Your task to perform on an android device: What is the capital of Brazil? Image 0: 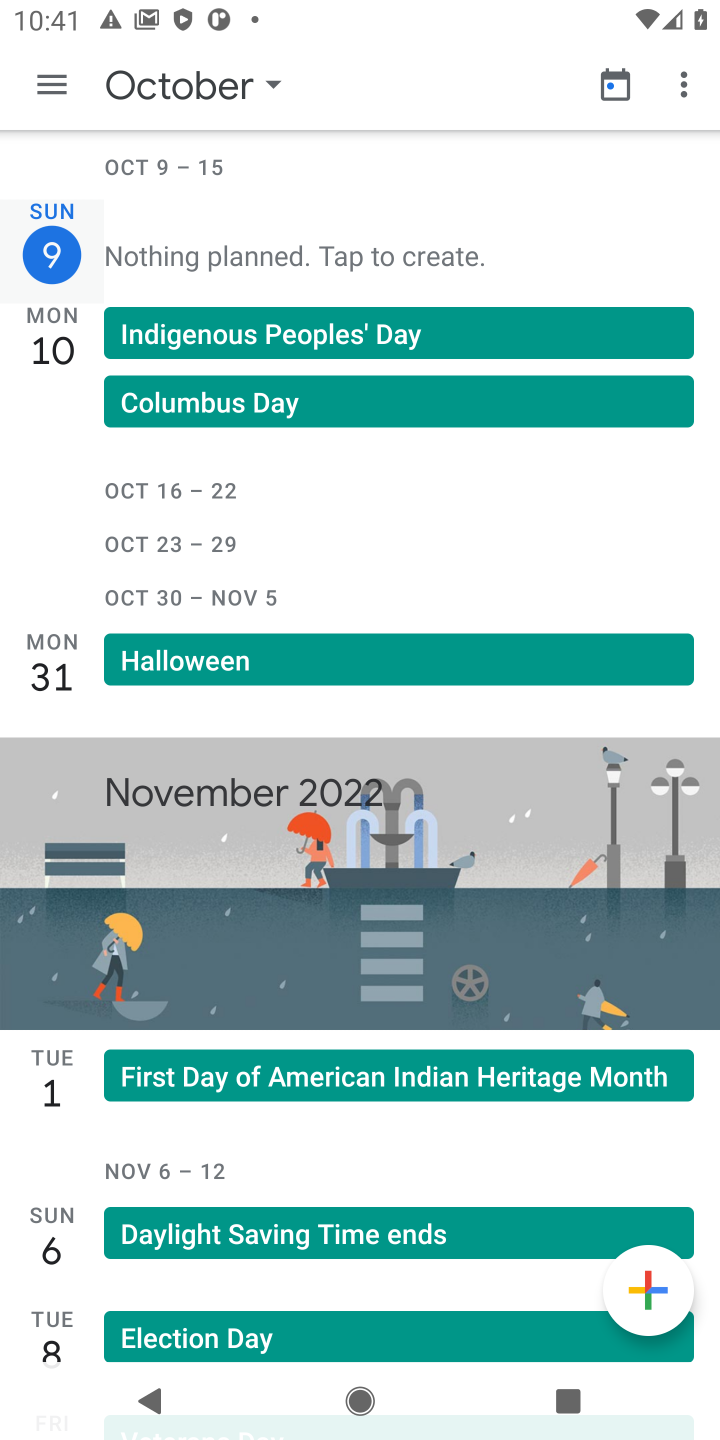
Step 0: press home button
Your task to perform on an android device: What is the capital of Brazil? Image 1: 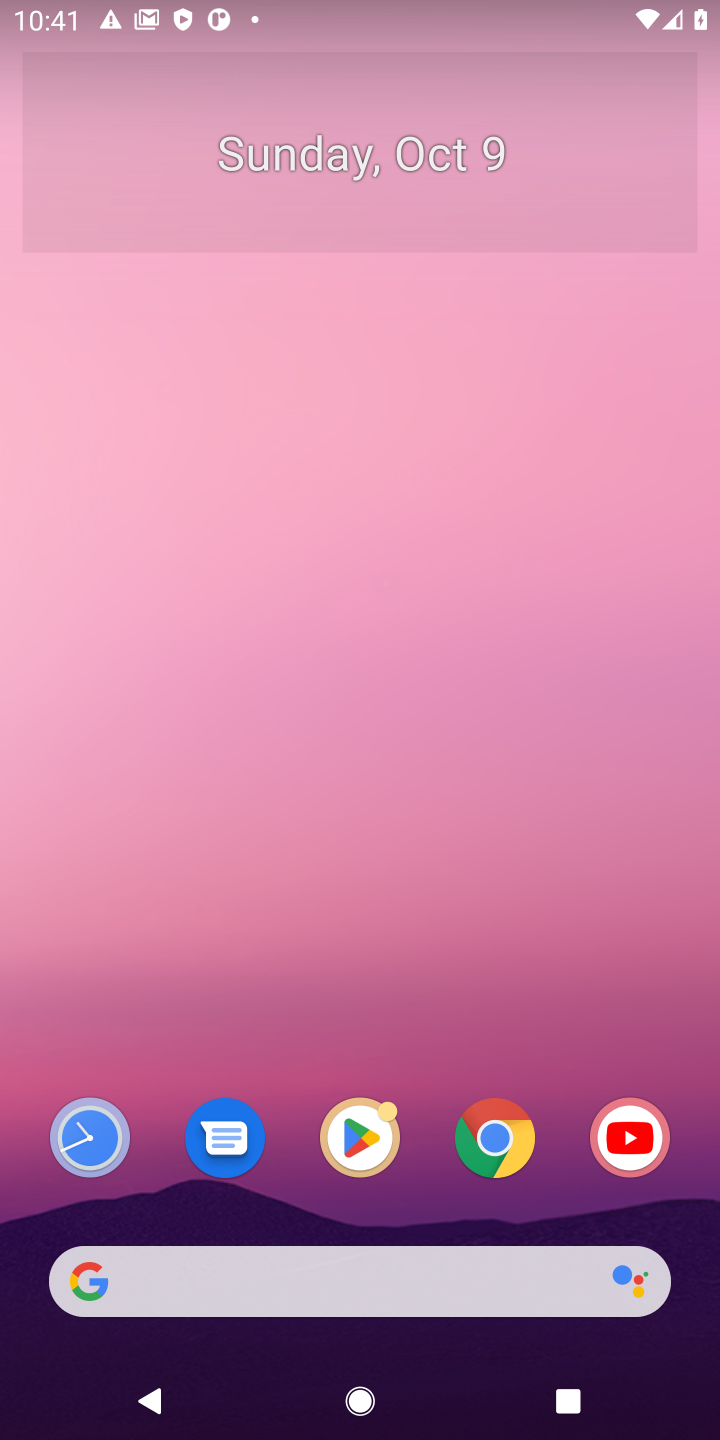
Step 1: click (415, 1161)
Your task to perform on an android device: What is the capital of Brazil? Image 2: 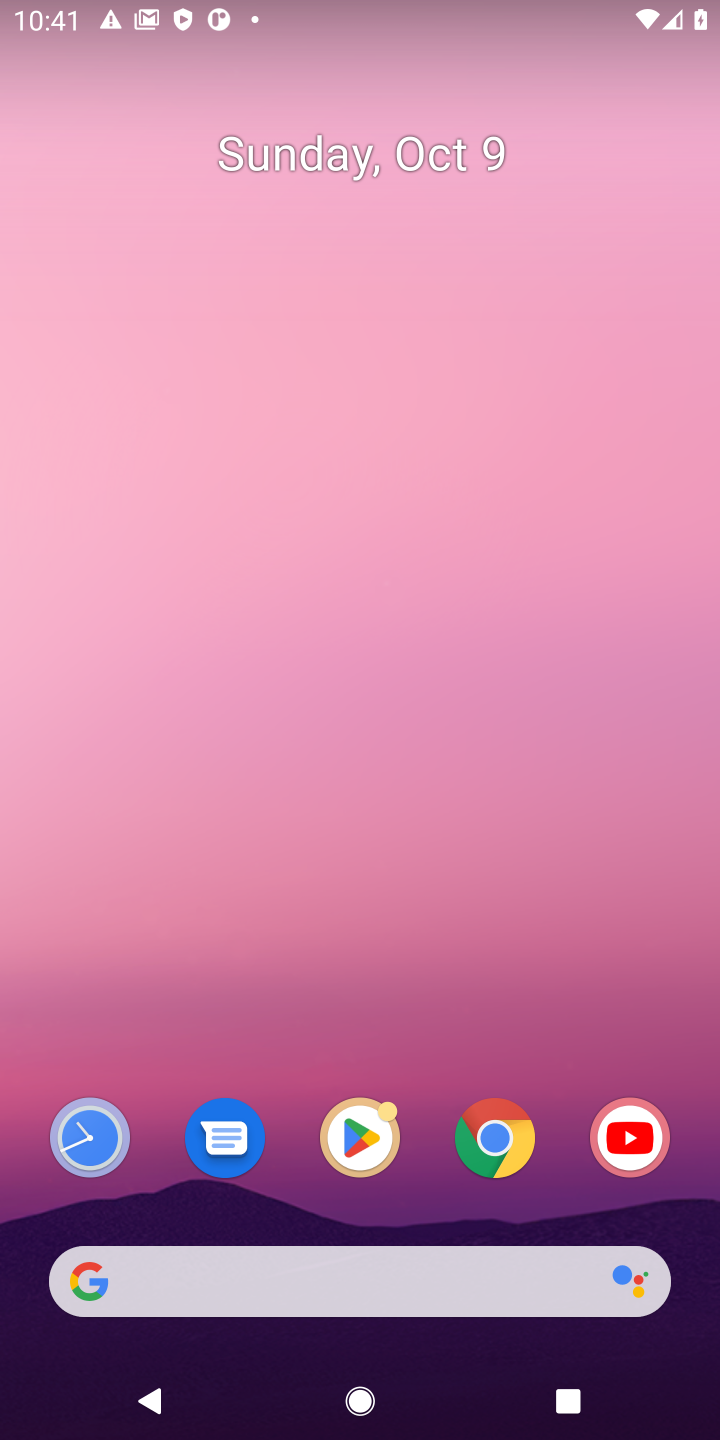
Step 2: click (477, 1164)
Your task to perform on an android device: What is the capital of Brazil? Image 3: 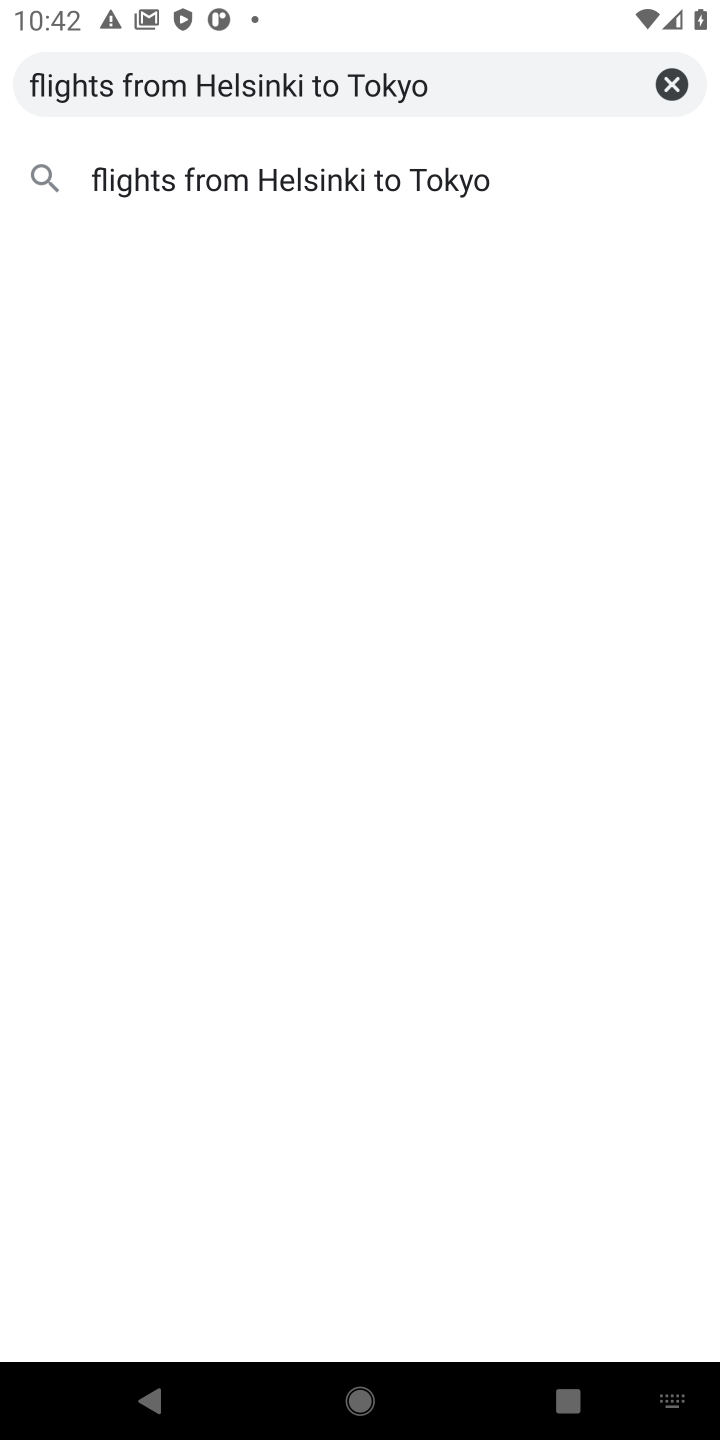
Step 3: click (670, 90)
Your task to perform on an android device: What is the capital of Brazil? Image 4: 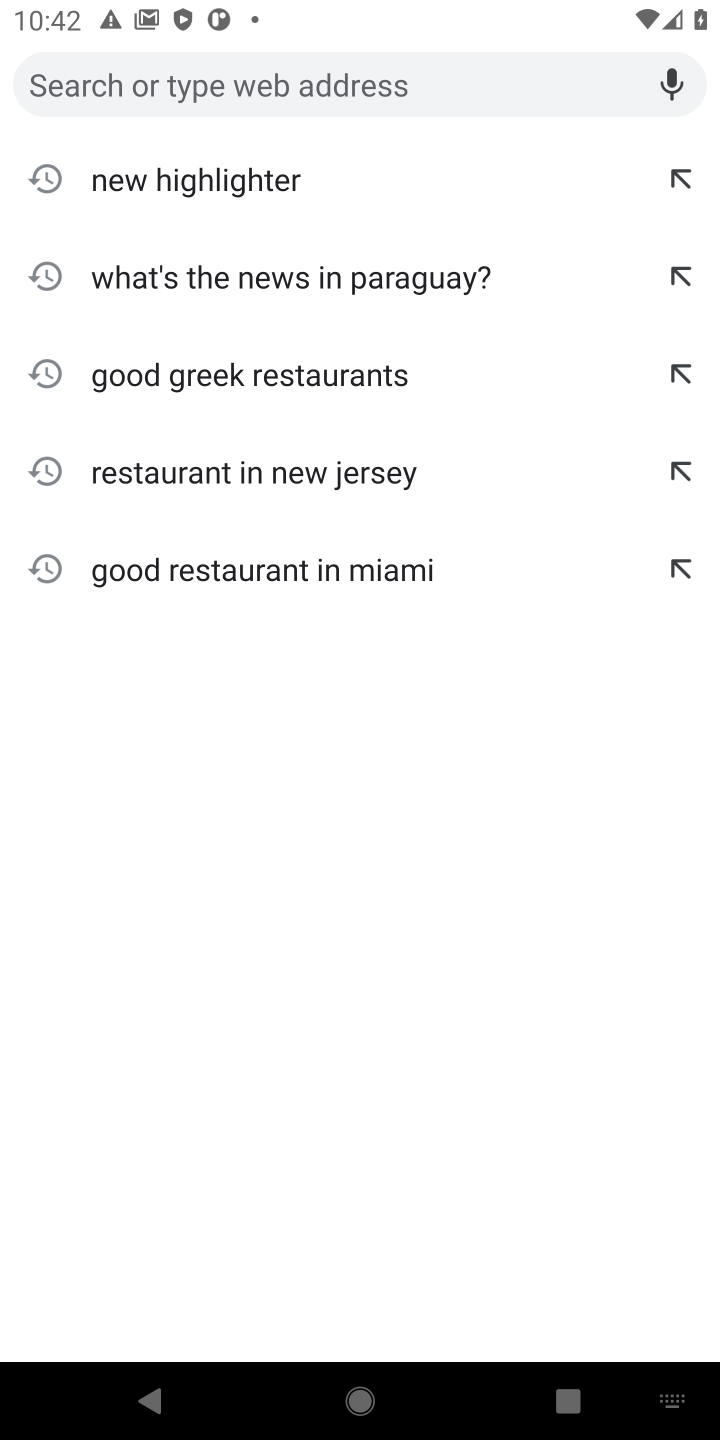
Step 4: drag from (684, 1428) to (542, 1410)
Your task to perform on an android device: What is the capital of Brazil? Image 5: 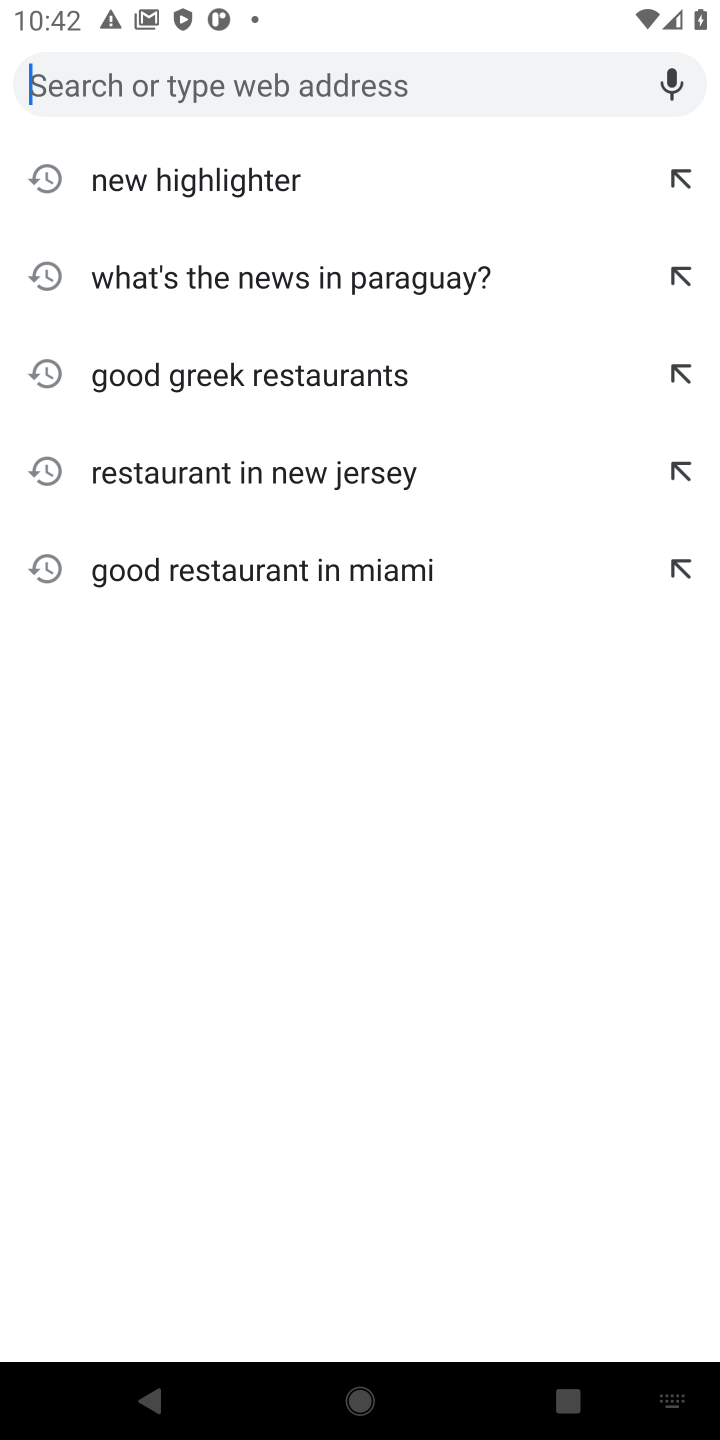
Step 5: type "What is the capital of Brazil?"
Your task to perform on an android device: What is the capital of Brazil? Image 6: 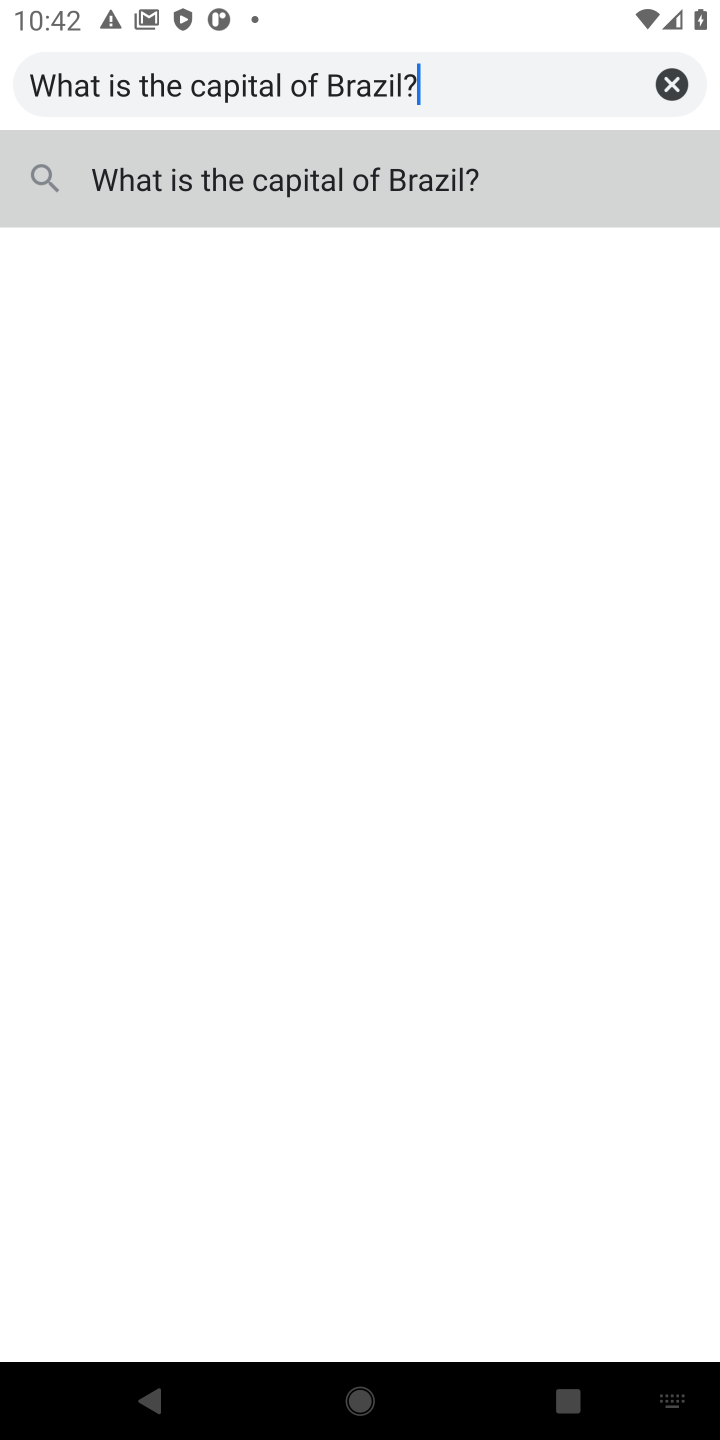
Step 6: press enter
Your task to perform on an android device: What is the capital of Brazil? Image 7: 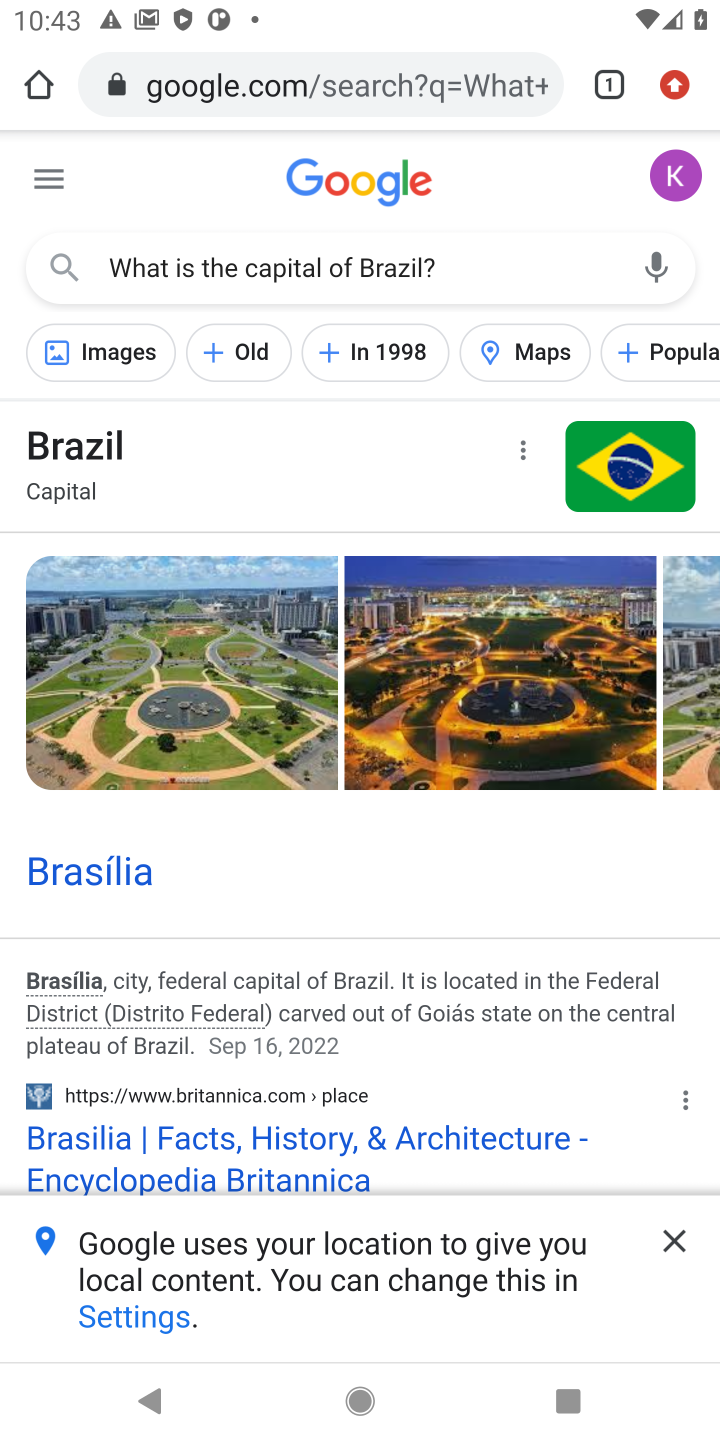
Step 7: task complete